Your task to perform on an android device: Do I have any events today? Image 0: 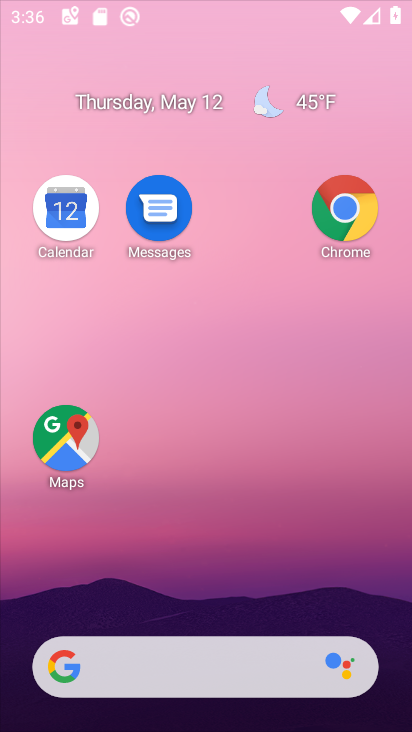
Step 0: click (246, 48)
Your task to perform on an android device: Do I have any events today? Image 1: 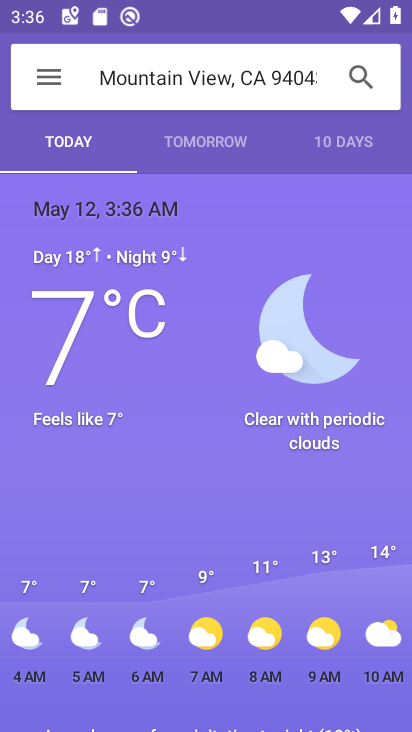
Step 1: press back button
Your task to perform on an android device: Do I have any events today? Image 2: 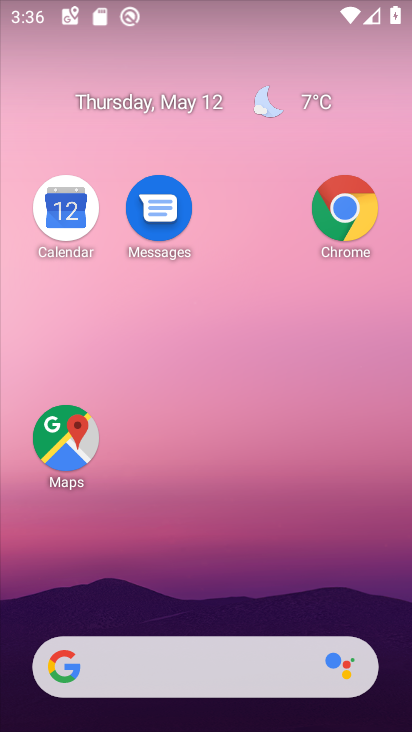
Step 2: drag from (213, 592) to (245, 154)
Your task to perform on an android device: Do I have any events today? Image 3: 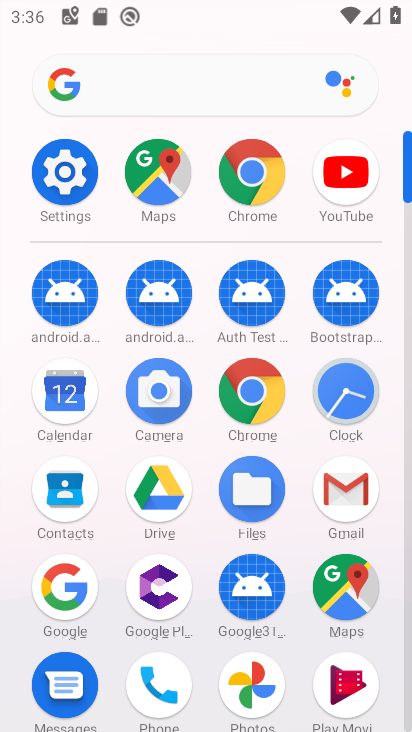
Step 3: drag from (177, 645) to (178, 221)
Your task to perform on an android device: Do I have any events today? Image 4: 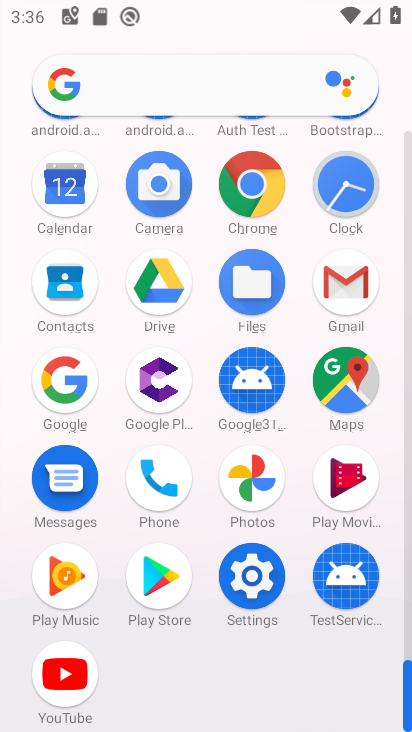
Step 4: click (50, 194)
Your task to perform on an android device: Do I have any events today? Image 5: 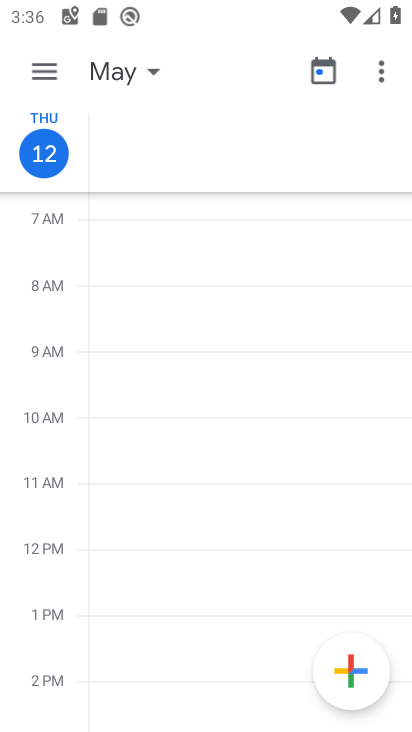
Step 5: drag from (242, 570) to (330, 214)
Your task to perform on an android device: Do I have any events today? Image 6: 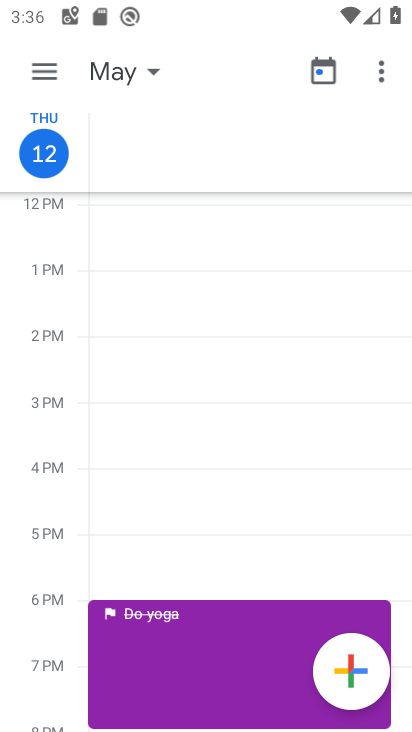
Step 6: drag from (185, 634) to (237, 334)
Your task to perform on an android device: Do I have any events today? Image 7: 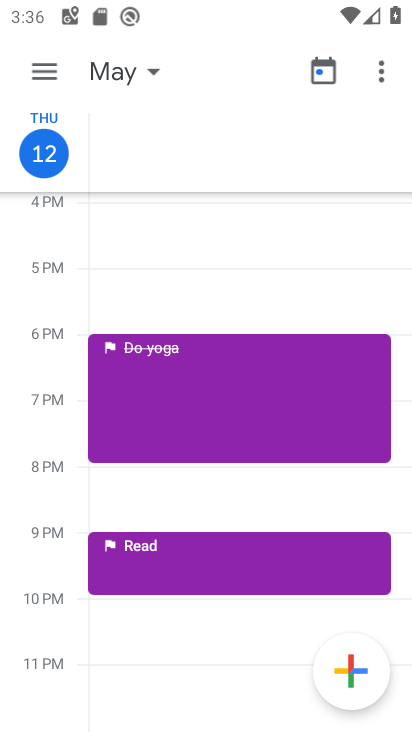
Step 7: click (128, 560)
Your task to perform on an android device: Do I have any events today? Image 8: 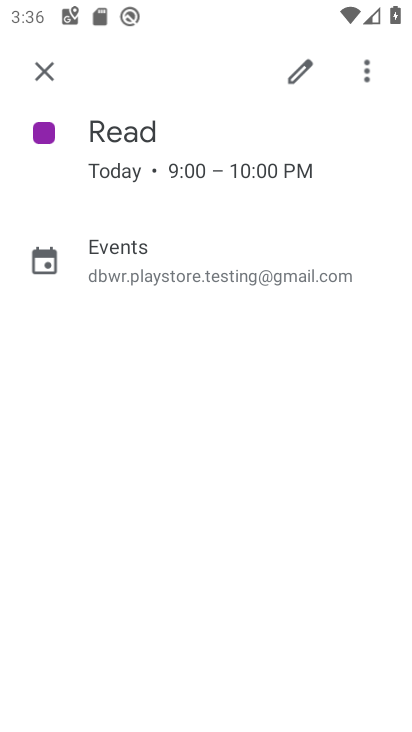
Step 8: task complete